Your task to perform on an android device: Go to display settings Image 0: 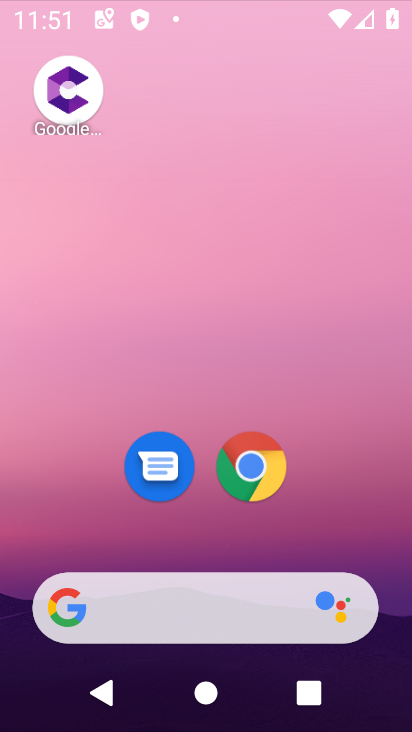
Step 0: press home button
Your task to perform on an android device: Go to display settings Image 1: 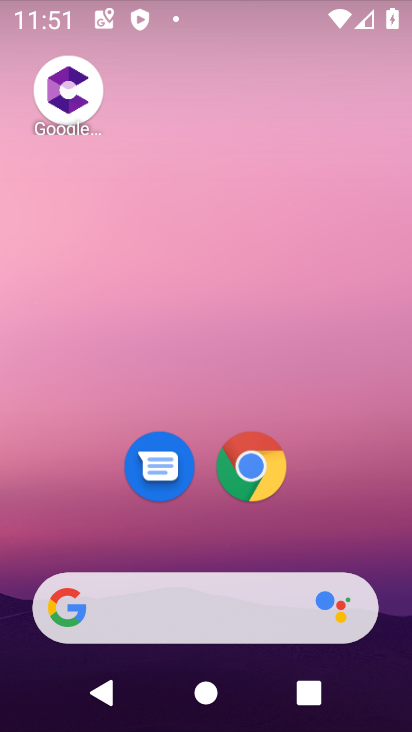
Step 1: drag from (205, 521) to (257, 54)
Your task to perform on an android device: Go to display settings Image 2: 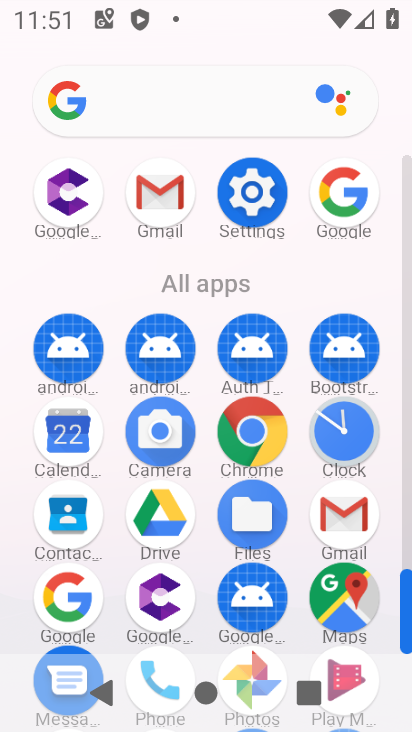
Step 2: click (253, 189)
Your task to perform on an android device: Go to display settings Image 3: 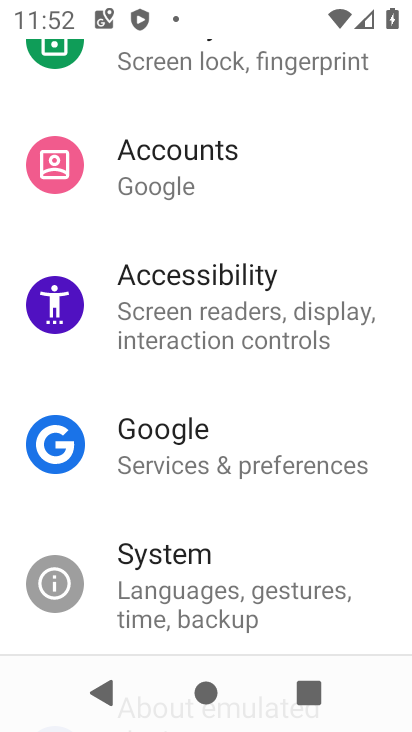
Step 3: drag from (180, 167) to (221, 550)
Your task to perform on an android device: Go to display settings Image 4: 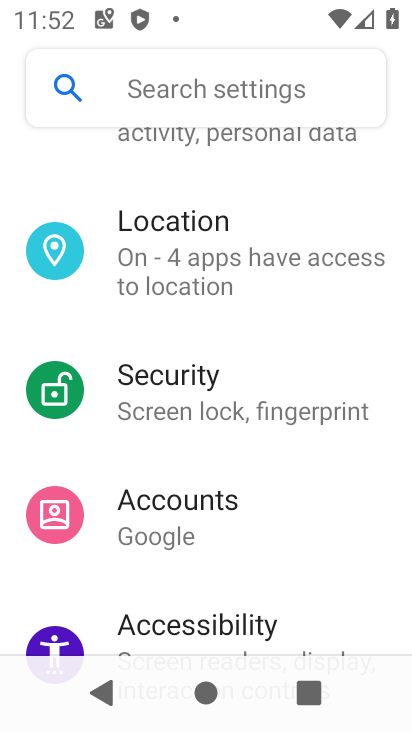
Step 4: drag from (193, 198) to (232, 569)
Your task to perform on an android device: Go to display settings Image 5: 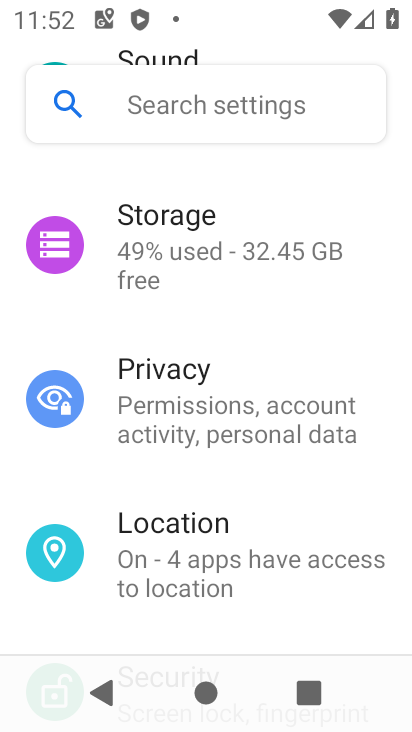
Step 5: drag from (186, 236) to (196, 605)
Your task to perform on an android device: Go to display settings Image 6: 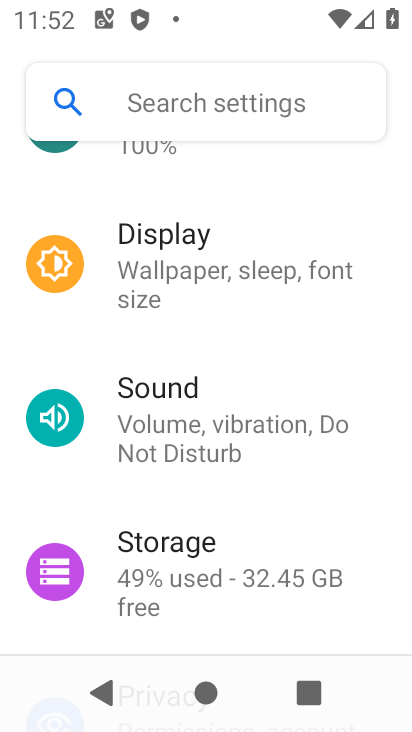
Step 6: click (168, 246)
Your task to perform on an android device: Go to display settings Image 7: 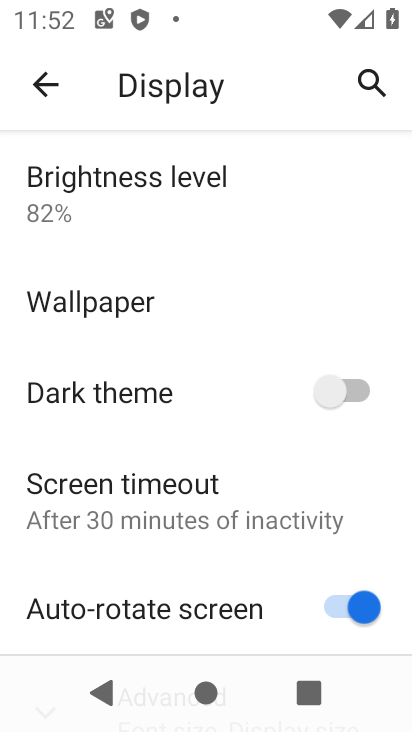
Step 7: task complete